Your task to perform on an android device: Open eBay Image 0: 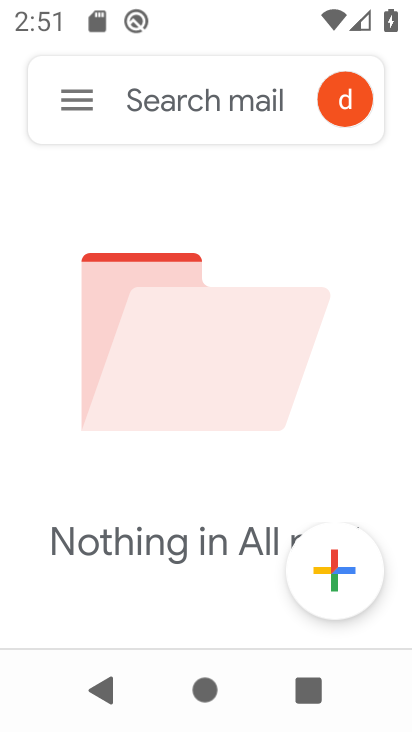
Step 0: press home button
Your task to perform on an android device: Open eBay Image 1: 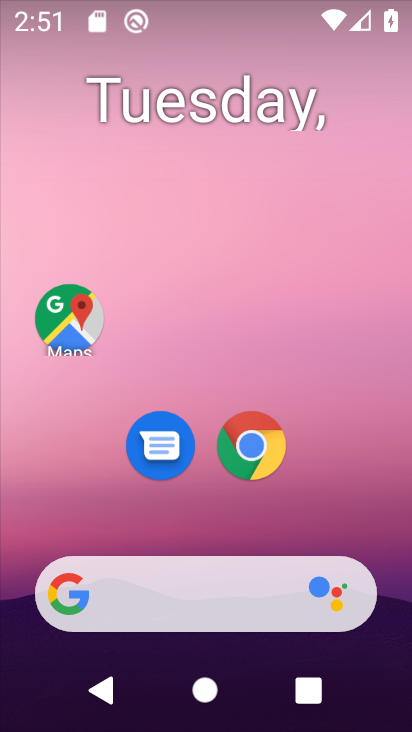
Step 1: click (256, 449)
Your task to perform on an android device: Open eBay Image 2: 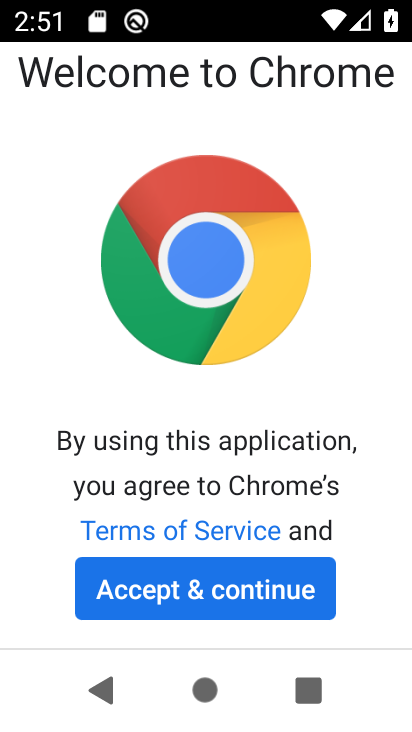
Step 2: click (206, 582)
Your task to perform on an android device: Open eBay Image 3: 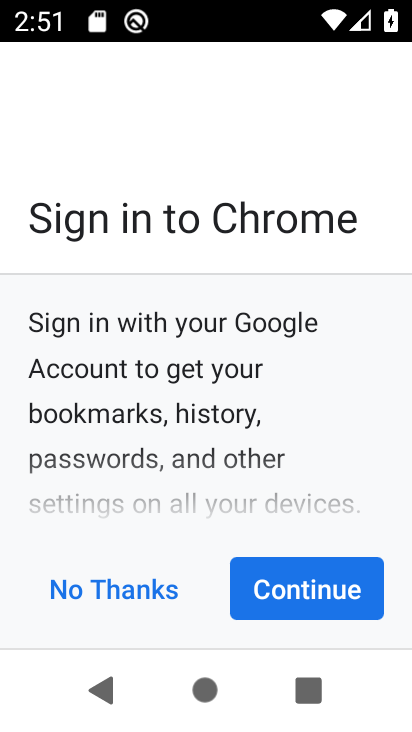
Step 3: click (108, 593)
Your task to perform on an android device: Open eBay Image 4: 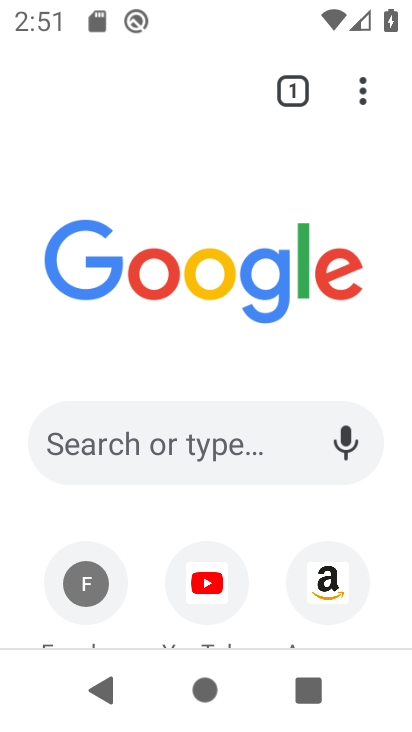
Step 4: drag from (399, 582) to (410, 451)
Your task to perform on an android device: Open eBay Image 5: 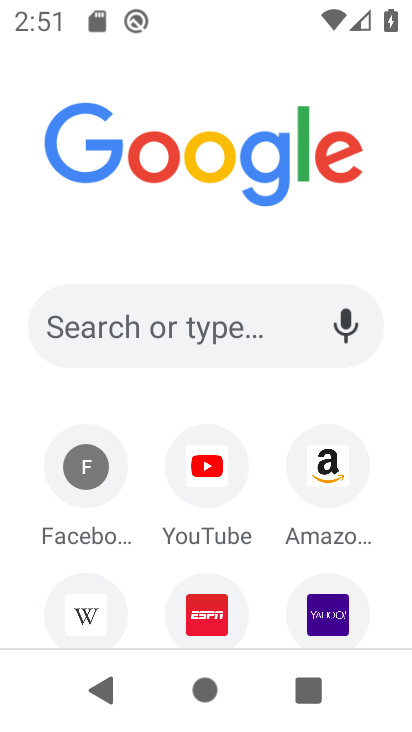
Step 5: drag from (399, 566) to (411, 454)
Your task to perform on an android device: Open eBay Image 6: 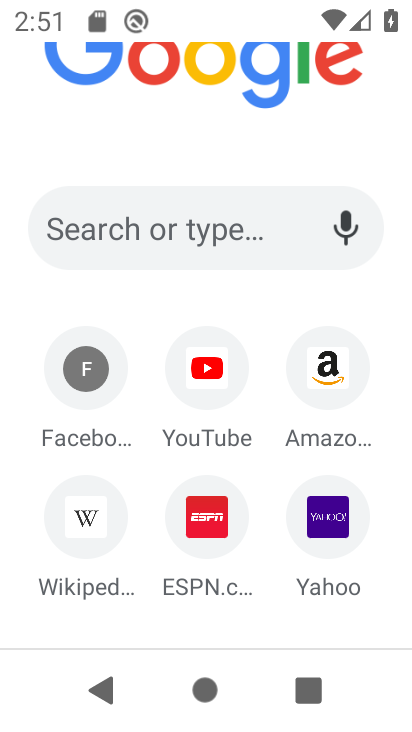
Step 6: click (73, 264)
Your task to perform on an android device: Open eBay Image 7: 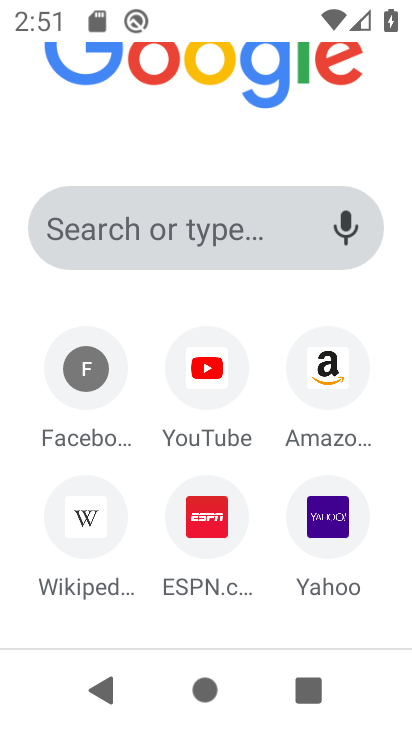
Step 7: click (73, 233)
Your task to perform on an android device: Open eBay Image 8: 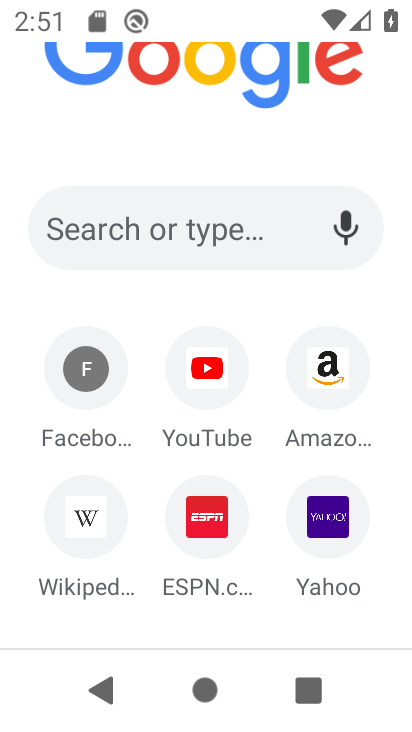
Step 8: click (69, 230)
Your task to perform on an android device: Open eBay Image 9: 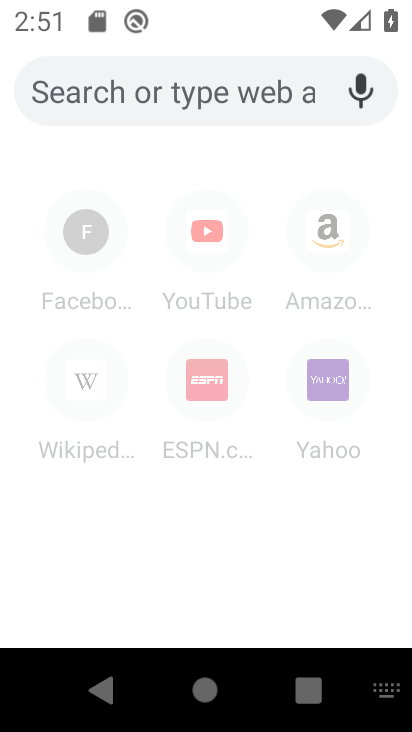
Step 9: type "ebay"
Your task to perform on an android device: Open eBay Image 10: 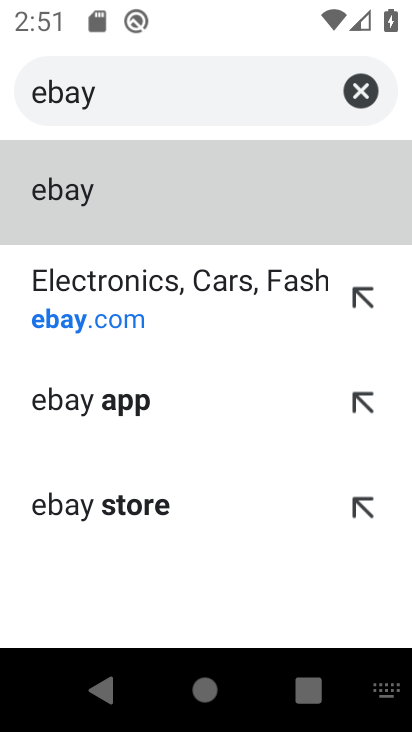
Step 10: click (70, 200)
Your task to perform on an android device: Open eBay Image 11: 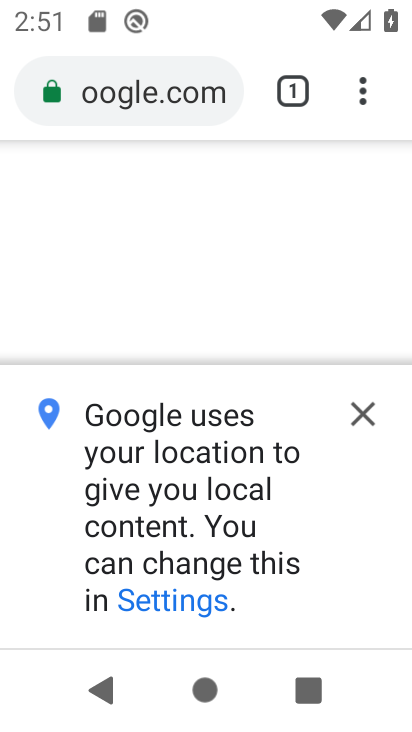
Step 11: click (356, 414)
Your task to perform on an android device: Open eBay Image 12: 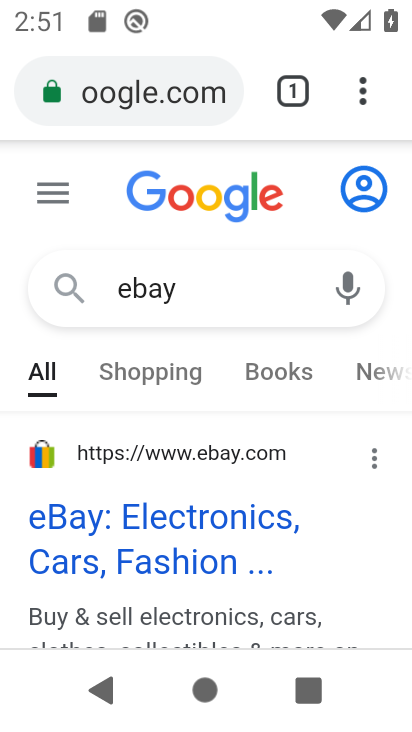
Step 12: click (63, 522)
Your task to perform on an android device: Open eBay Image 13: 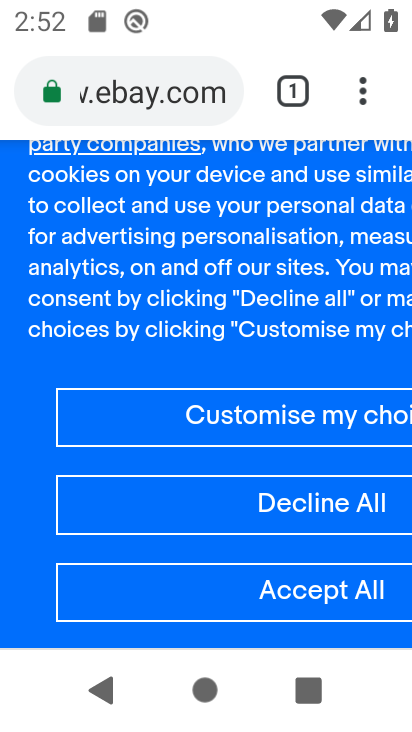
Step 13: task complete